Your task to perform on an android device: delete location history Image 0: 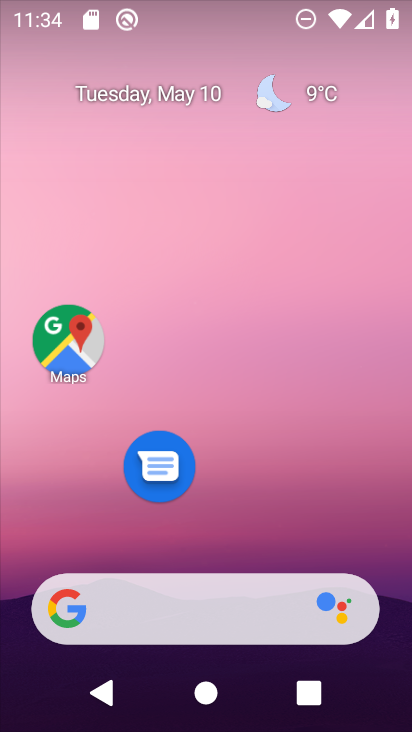
Step 0: drag from (252, 532) to (260, 104)
Your task to perform on an android device: delete location history Image 1: 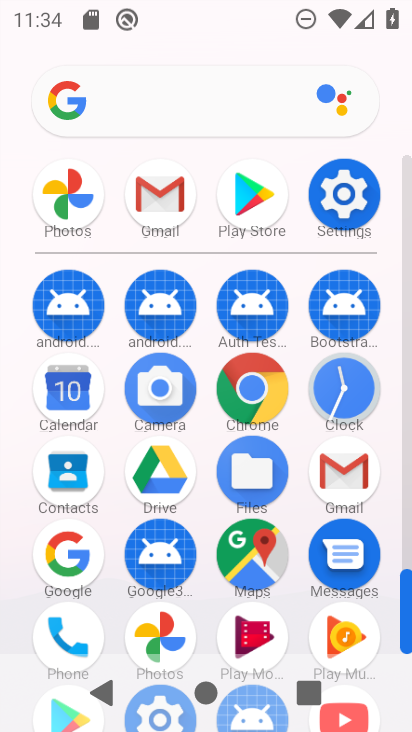
Step 1: click (248, 565)
Your task to perform on an android device: delete location history Image 2: 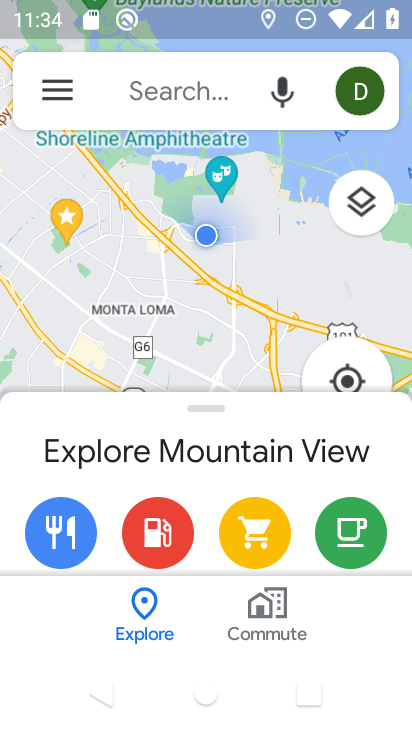
Step 2: click (64, 92)
Your task to perform on an android device: delete location history Image 3: 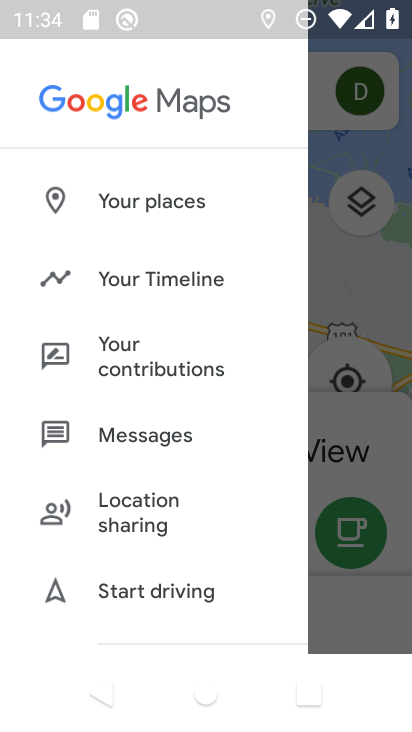
Step 3: click (145, 280)
Your task to perform on an android device: delete location history Image 4: 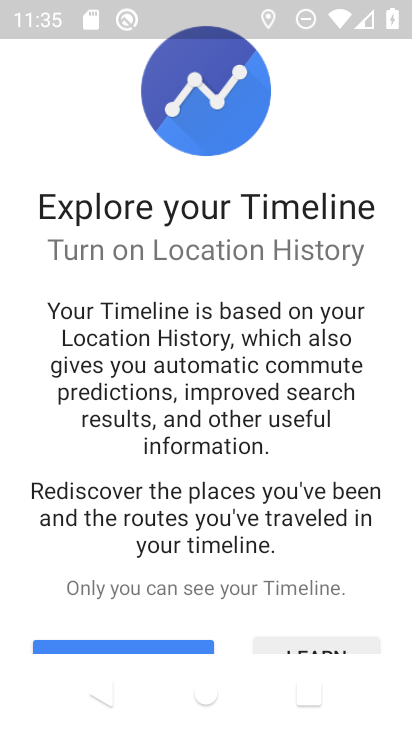
Step 4: drag from (304, 537) to (293, 223)
Your task to perform on an android device: delete location history Image 5: 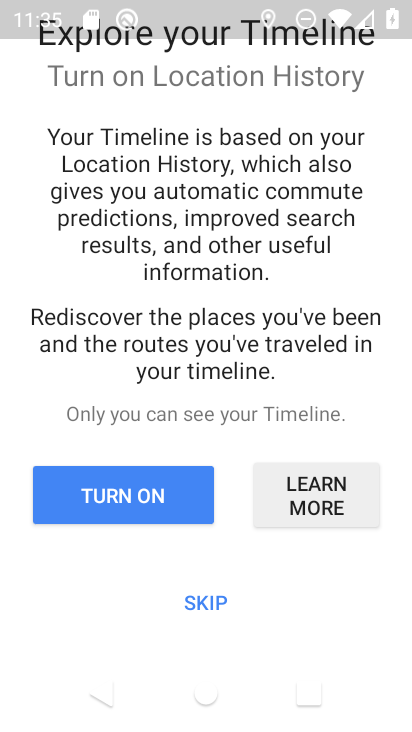
Step 5: click (218, 604)
Your task to perform on an android device: delete location history Image 6: 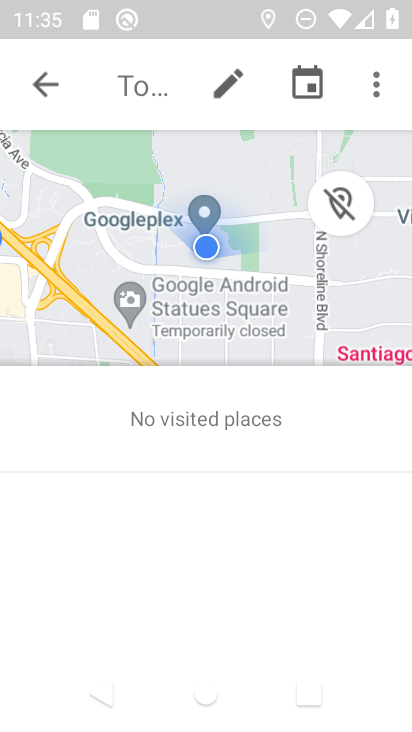
Step 6: click (379, 90)
Your task to perform on an android device: delete location history Image 7: 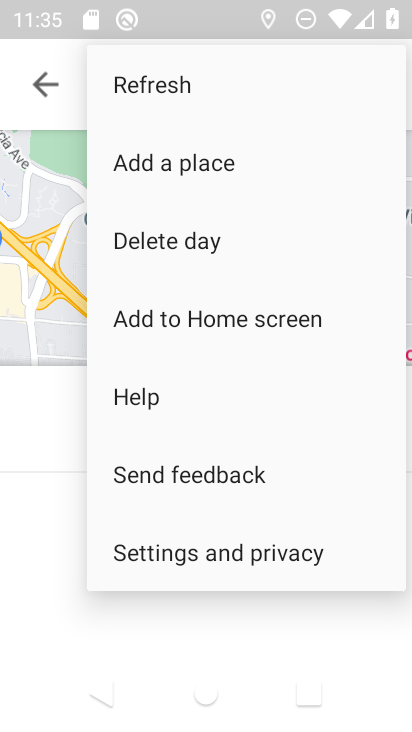
Step 7: click (211, 558)
Your task to perform on an android device: delete location history Image 8: 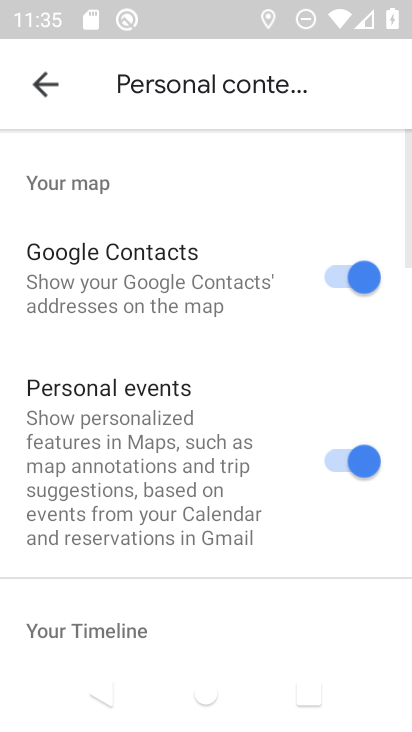
Step 8: drag from (203, 571) to (179, 289)
Your task to perform on an android device: delete location history Image 9: 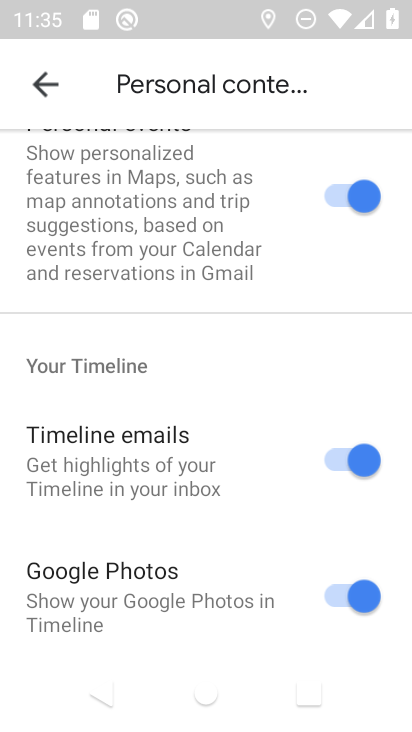
Step 9: drag from (194, 542) to (179, 270)
Your task to perform on an android device: delete location history Image 10: 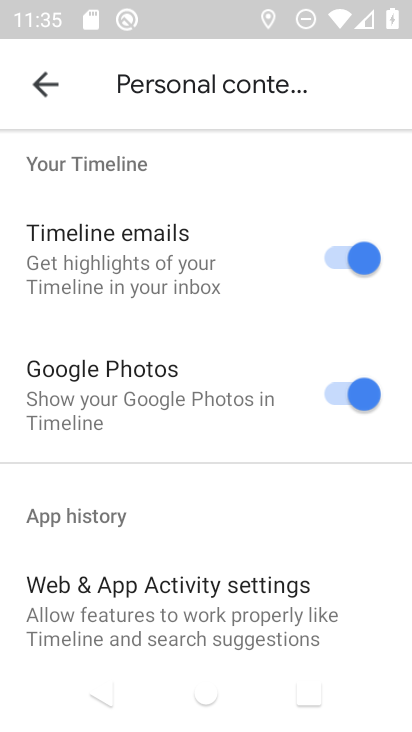
Step 10: drag from (223, 525) to (179, 254)
Your task to perform on an android device: delete location history Image 11: 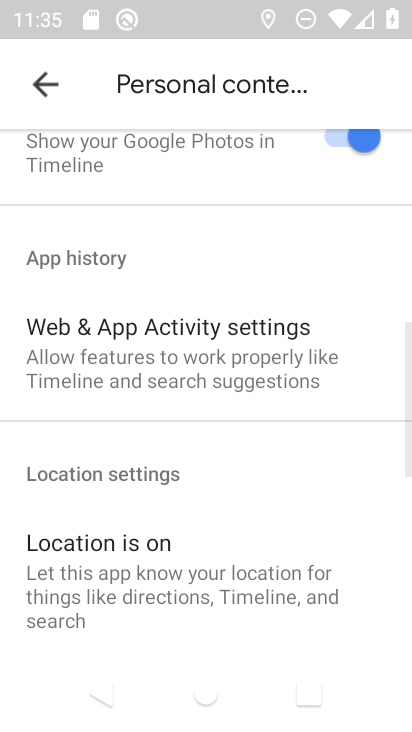
Step 11: drag from (238, 548) to (218, 327)
Your task to perform on an android device: delete location history Image 12: 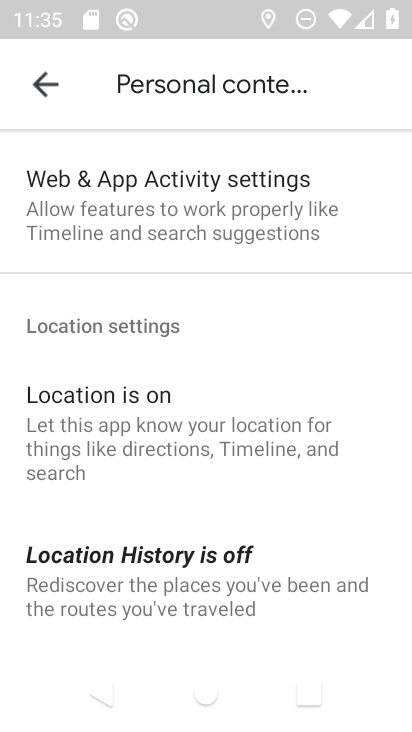
Step 12: drag from (234, 551) to (205, 274)
Your task to perform on an android device: delete location history Image 13: 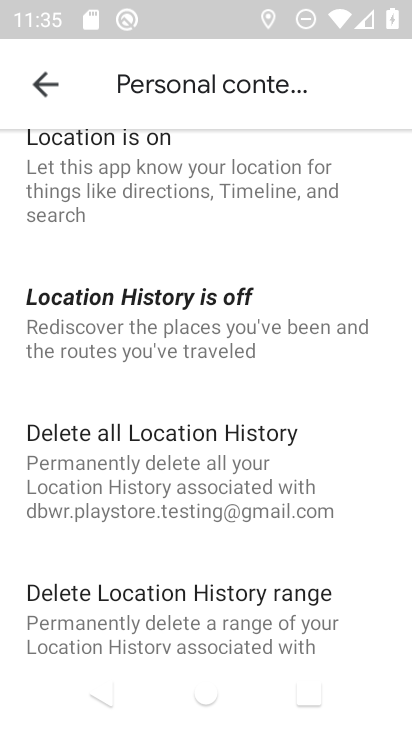
Step 13: click (270, 477)
Your task to perform on an android device: delete location history Image 14: 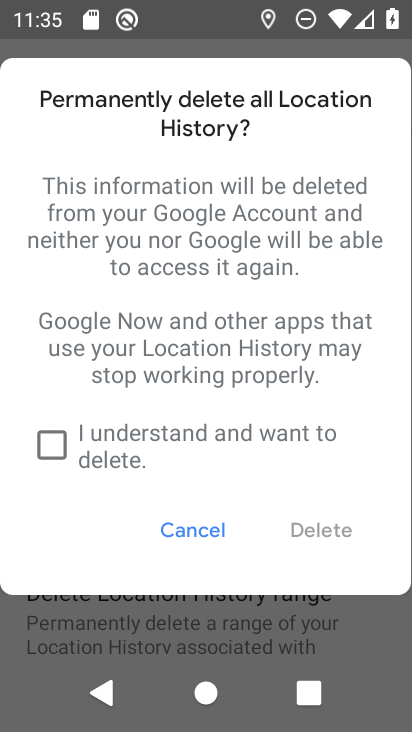
Step 14: click (95, 406)
Your task to perform on an android device: delete location history Image 15: 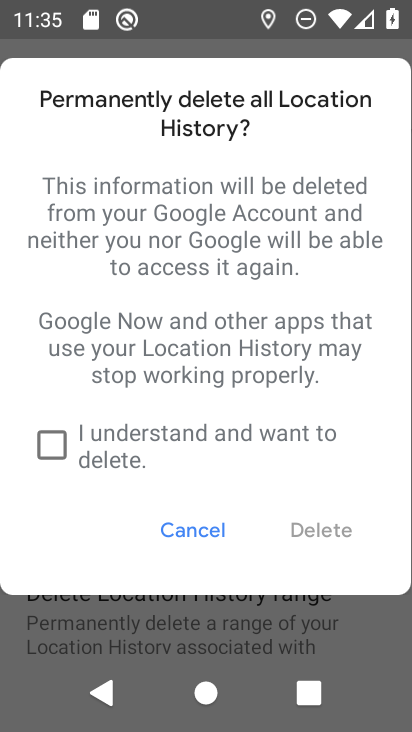
Step 15: click (61, 449)
Your task to perform on an android device: delete location history Image 16: 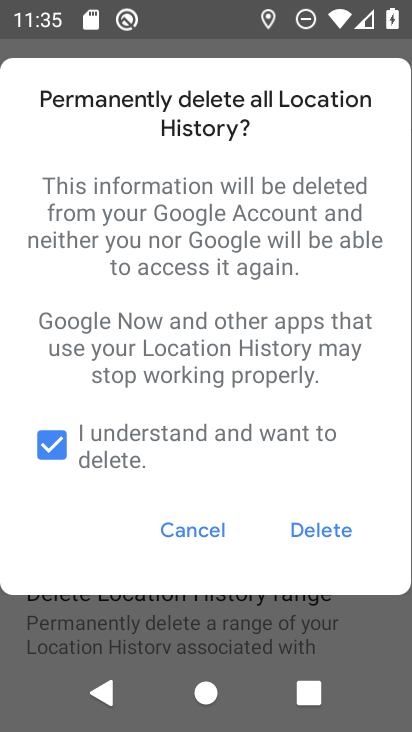
Step 16: click (337, 522)
Your task to perform on an android device: delete location history Image 17: 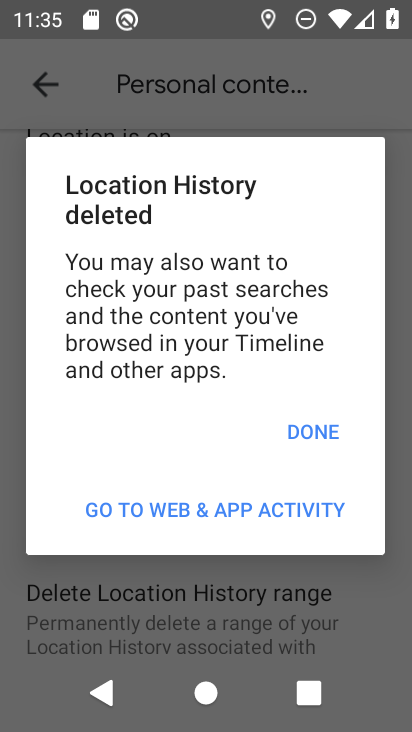
Step 17: click (327, 432)
Your task to perform on an android device: delete location history Image 18: 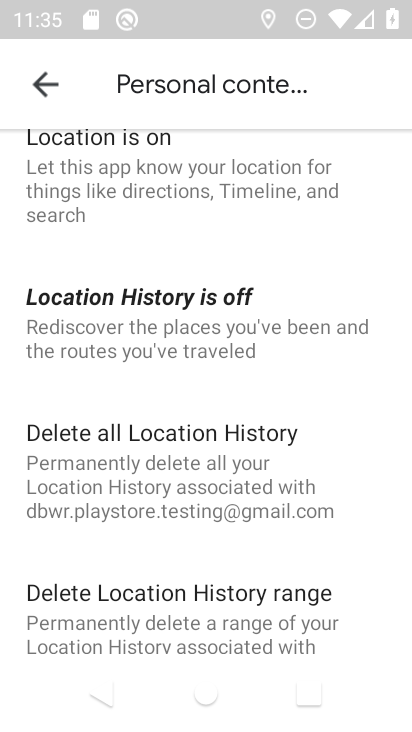
Step 18: task complete